Your task to perform on an android device: See recent photos Image 0: 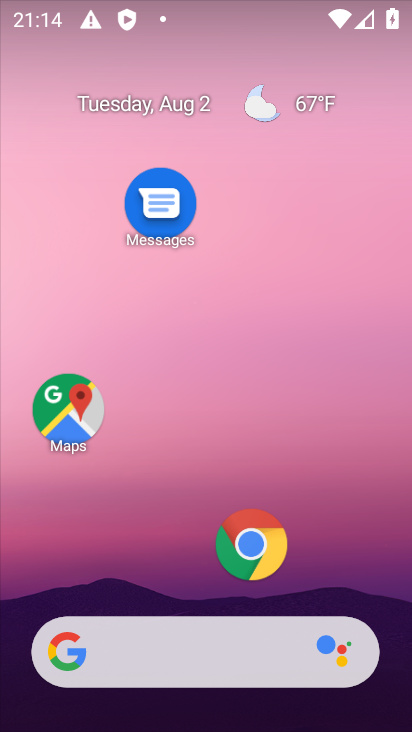
Step 0: drag from (196, 586) to (259, 159)
Your task to perform on an android device: See recent photos Image 1: 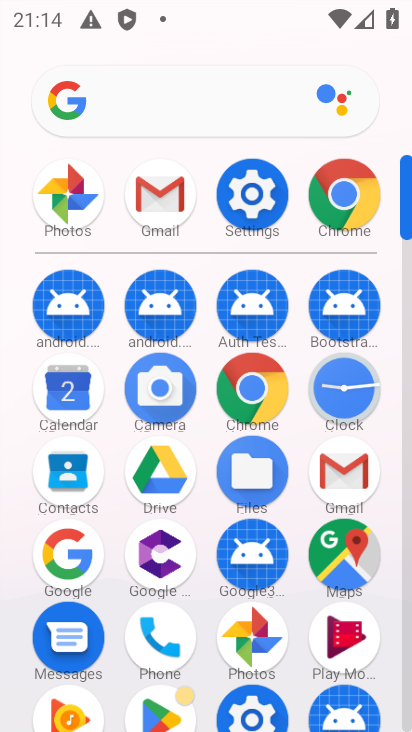
Step 1: click (81, 209)
Your task to perform on an android device: See recent photos Image 2: 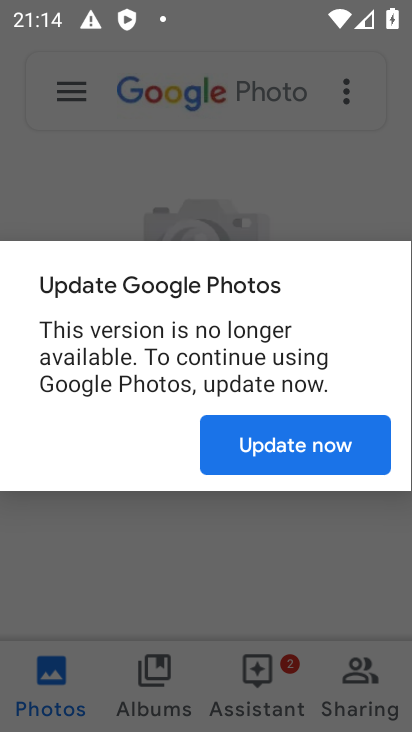
Step 2: click (238, 459)
Your task to perform on an android device: See recent photos Image 3: 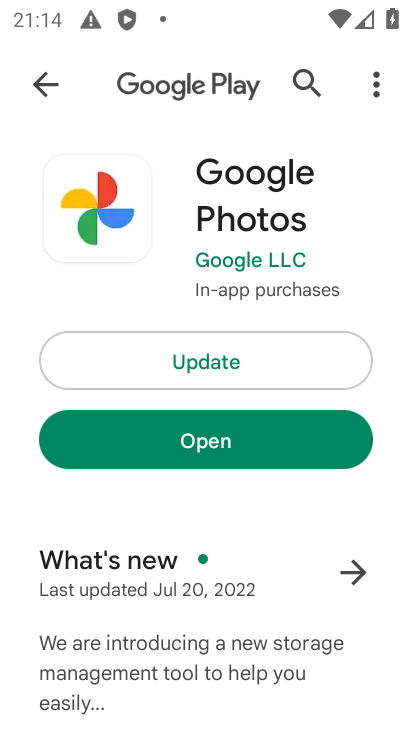
Step 3: click (238, 459)
Your task to perform on an android device: See recent photos Image 4: 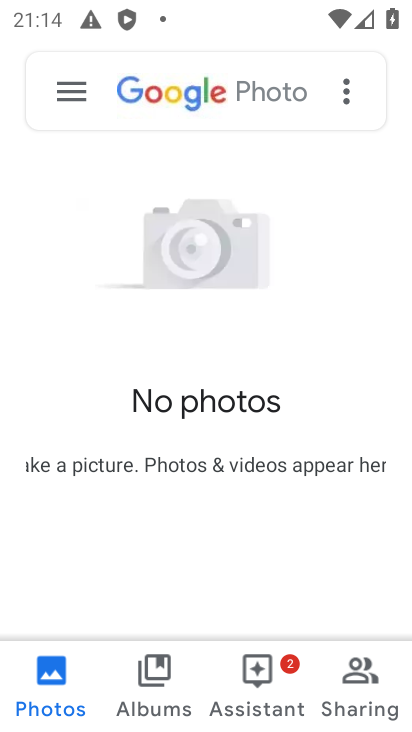
Step 4: task complete